Your task to perform on an android device: open a bookmark in the chrome app Image 0: 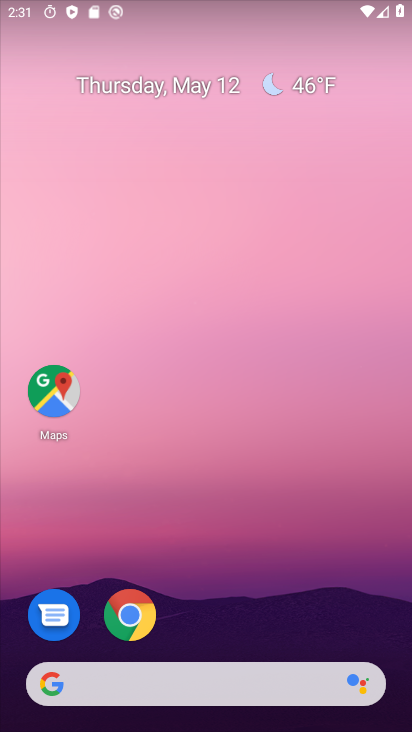
Step 0: click (134, 613)
Your task to perform on an android device: open a bookmark in the chrome app Image 1: 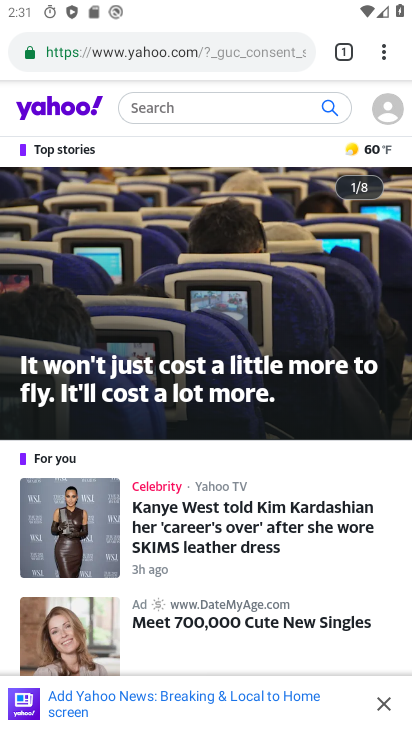
Step 1: click (376, 53)
Your task to perform on an android device: open a bookmark in the chrome app Image 2: 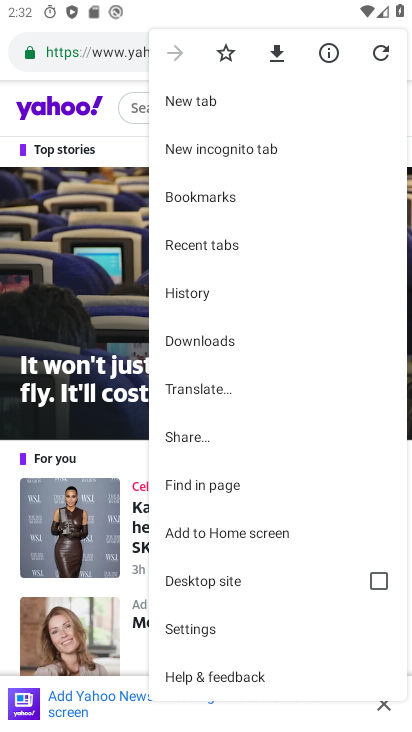
Step 2: click (225, 200)
Your task to perform on an android device: open a bookmark in the chrome app Image 3: 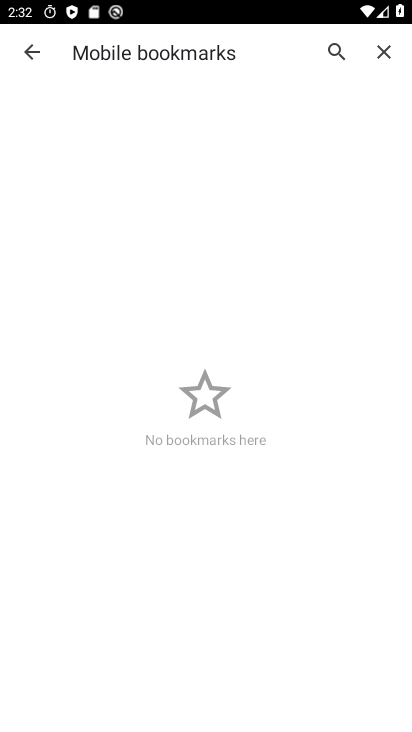
Step 3: task complete